Your task to perform on an android device: Open my contact list Image 0: 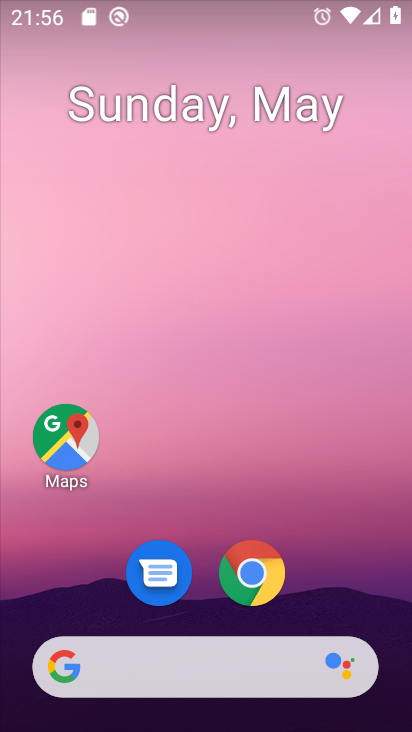
Step 0: drag from (247, 485) to (272, 3)
Your task to perform on an android device: Open my contact list Image 1: 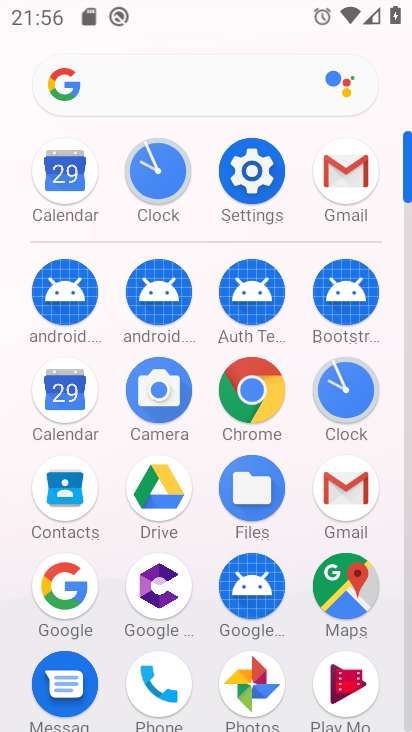
Step 1: click (70, 493)
Your task to perform on an android device: Open my contact list Image 2: 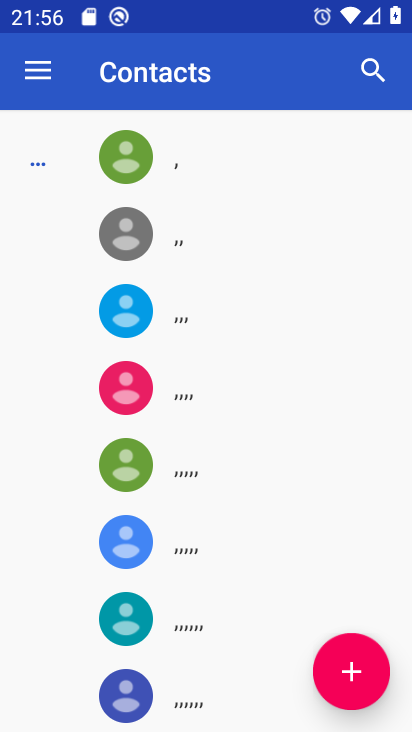
Step 2: task complete